Your task to perform on an android device: Go to calendar. Show me events next week Image 0: 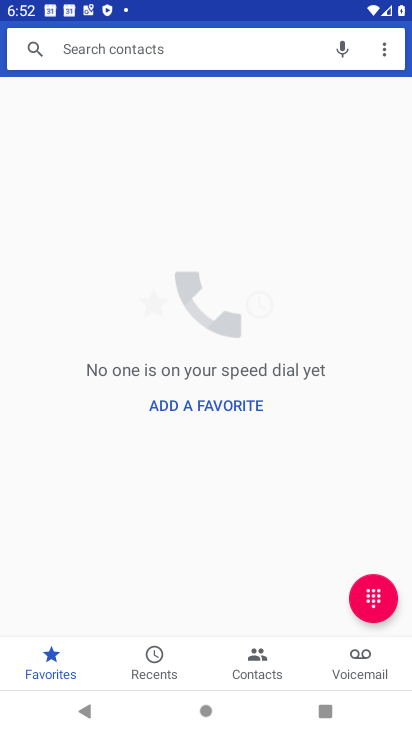
Step 0: press home button
Your task to perform on an android device: Go to calendar. Show me events next week Image 1: 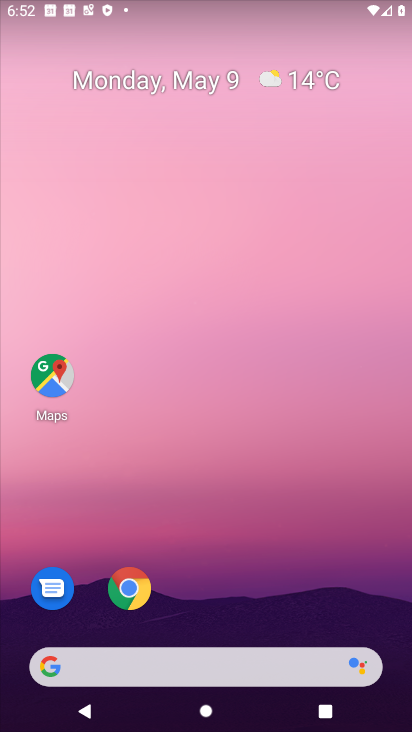
Step 1: drag from (320, 584) to (193, 13)
Your task to perform on an android device: Go to calendar. Show me events next week Image 2: 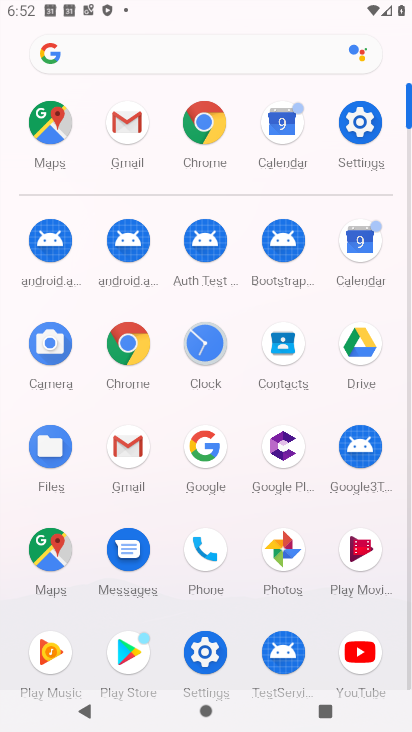
Step 2: click (349, 239)
Your task to perform on an android device: Go to calendar. Show me events next week Image 3: 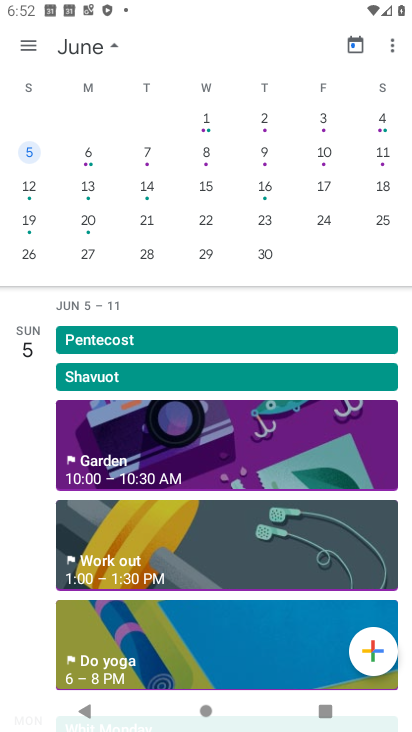
Step 3: drag from (56, 185) to (353, 171)
Your task to perform on an android device: Go to calendar. Show me events next week Image 4: 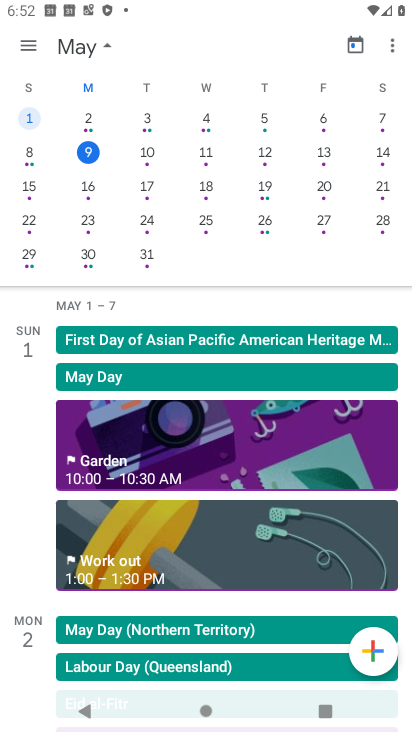
Step 4: click (97, 52)
Your task to perform on an android device: Go to calendar. Show me events next week Image 5: 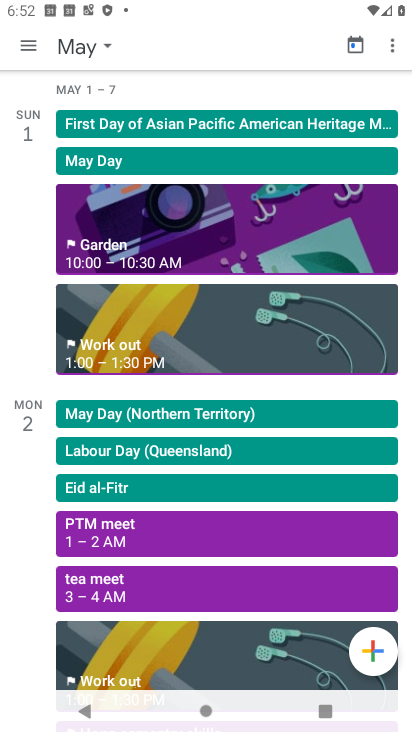
Step 5: click (96, 51)
Your task to perform on an android device: Go to calendar. Show me events next week Image 6: 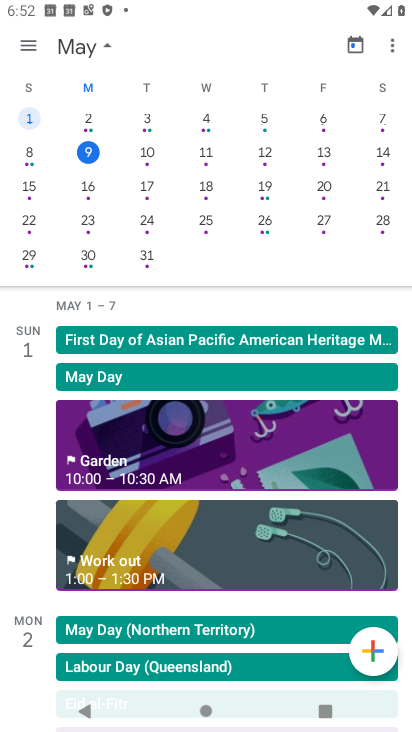
Step 6: click (25, 156)
Your task to perform on an android device: Go to calendar. Show me events next week Image 7: 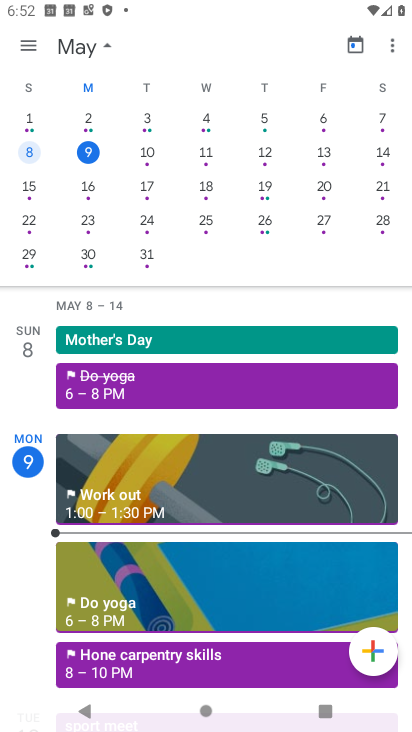
Step 7: drag from (115, 595) to (151, 157)
Your task to perform on an android device: Go to calendar. Show me events next week Image 8: 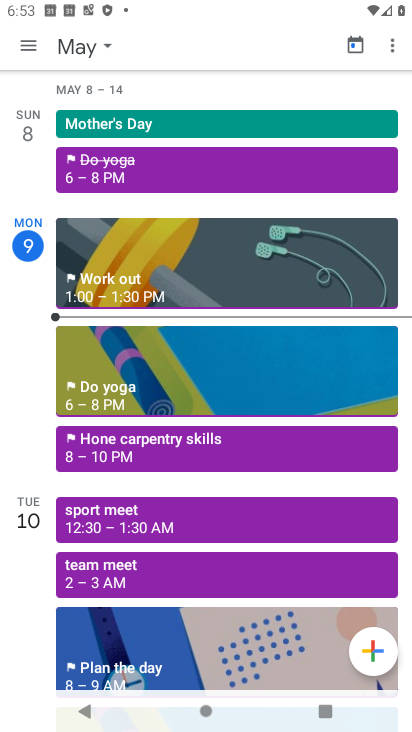
Step 8: drag from (67, 624) to (148, 19)
Your task to perform on an android device: Go to calendar. Show me events next week Image 9: 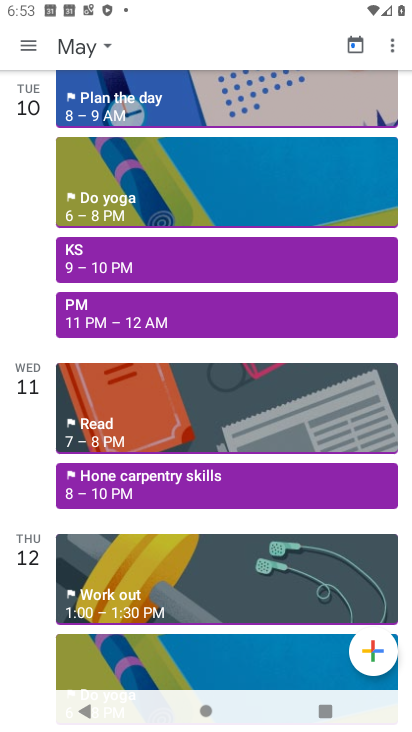
Step 9: drag from (136, 644) to (204, 103)
Your task to perform on an android device: Go to calendar. Show me events next week Image 10: 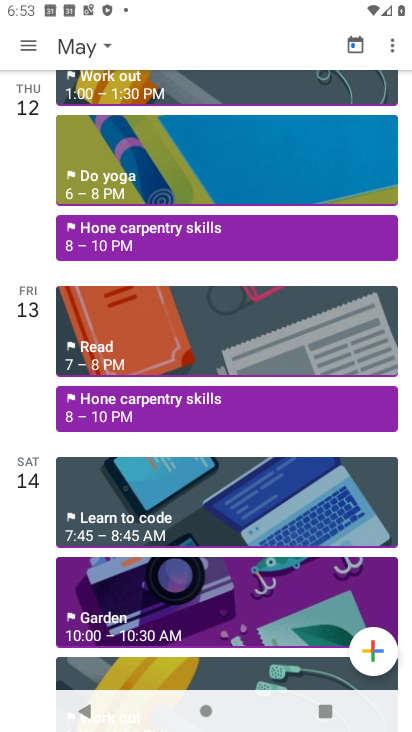
Step 10: click (166, 571)
Your task to perform on an android device: Go to calendar. Show me events next week Image 11: 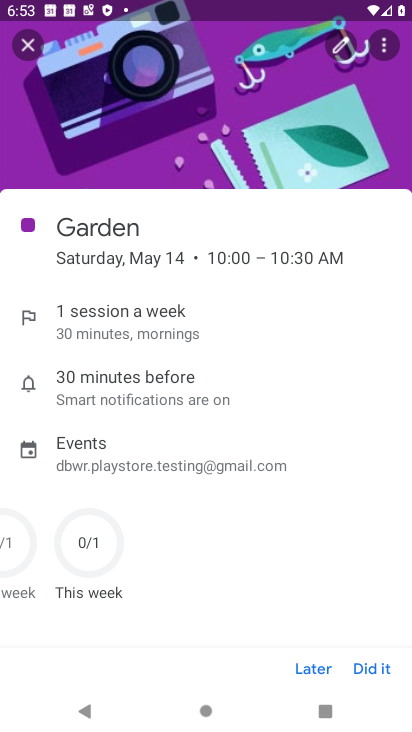
Step 11: task complete